Your task to perform on an android device: change the clock style Image 0: 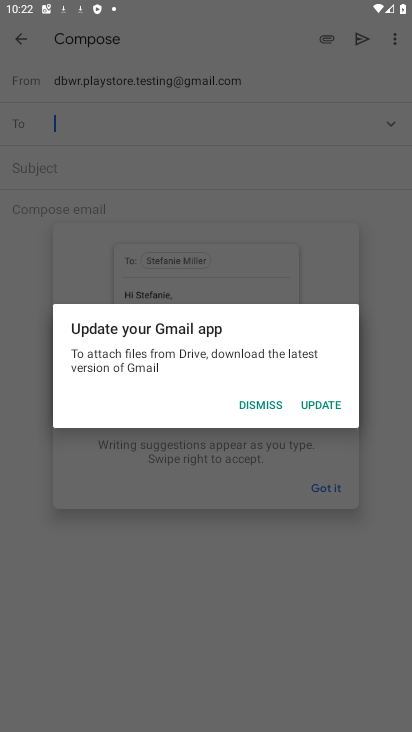
Step 0: press home button
Your task to perform on an android device: change the clock style Image 1: 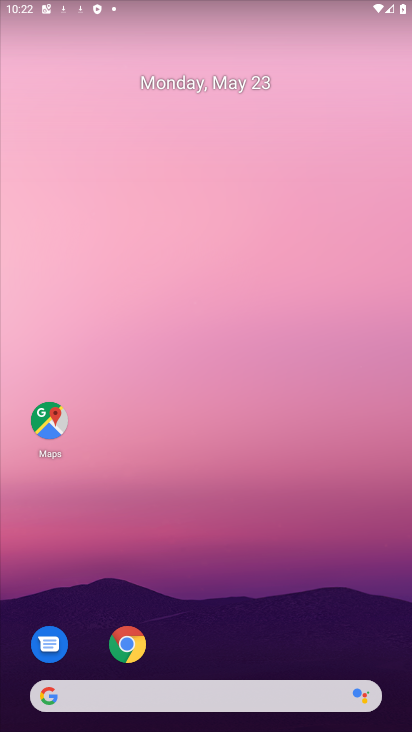
Step 1: drag from (210, 721) to (228, 75)
Your task to perform on an android device: change the clock style Image 2: 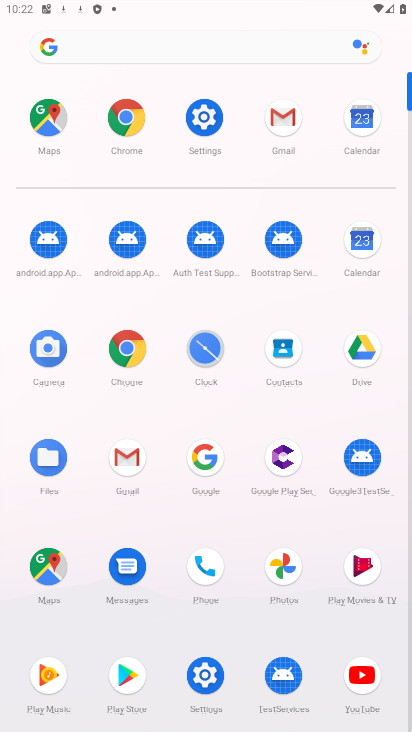
Step 2: click (203, 346)
Your task to perform on an android device: change the clock style Image 3: 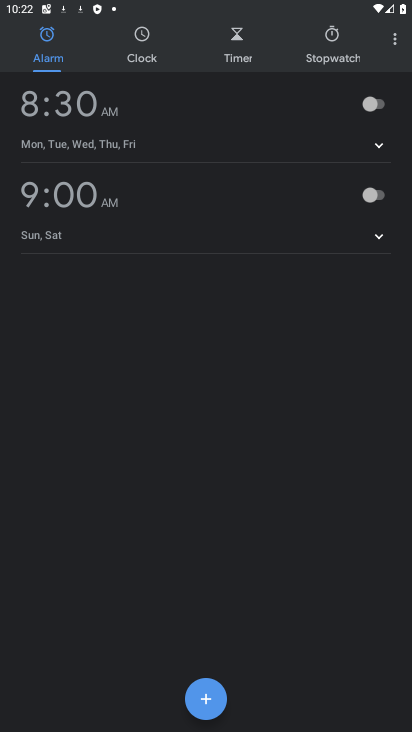
Step 3: click (389, 45)
Your task to perform on an android device: change the clock style Image 4: 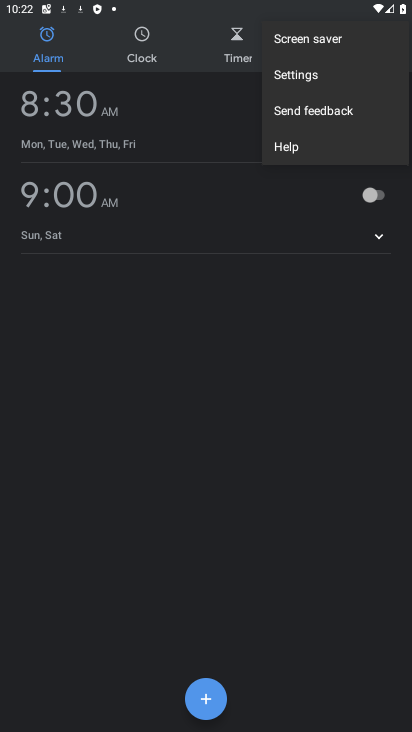
Step 4: click (310, 74)
Your task to perform on an android device: change the clock style Image 5: 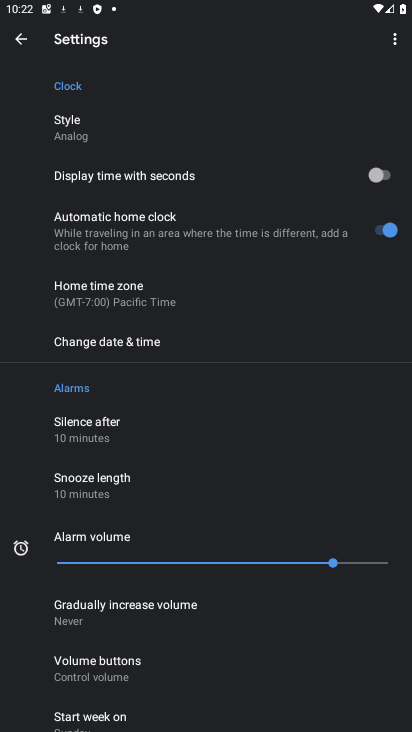
Step 5: click (108, 141)
Your task to perform on an android device: change the clock style Image 6: 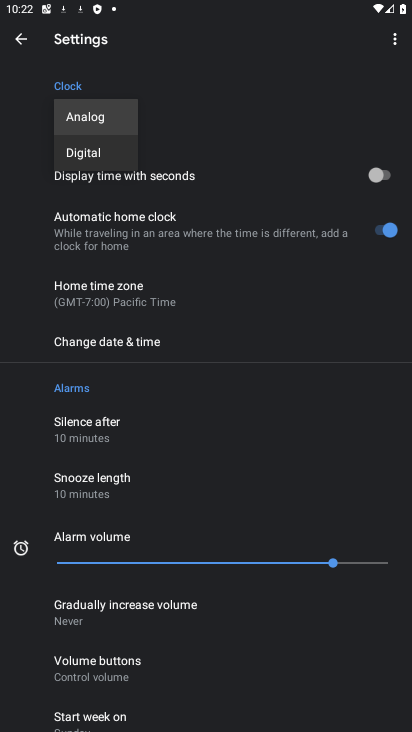
Step 6: click (96, 152)
Your task to perform on an android device: change the clock style Image 7: 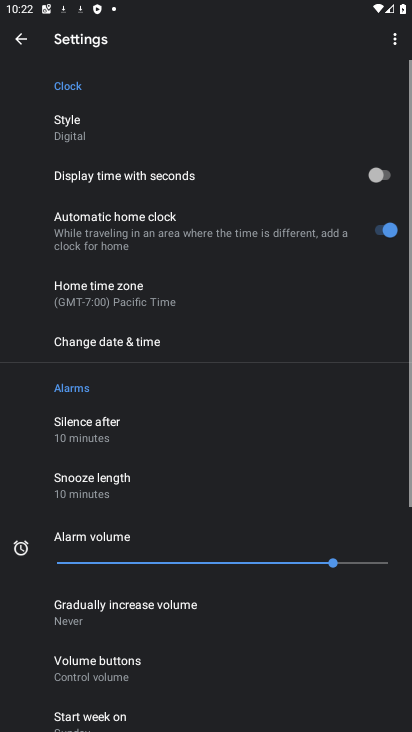
Step 7: task complete